Your task to perform on an android device: Go to eBay Image 0: 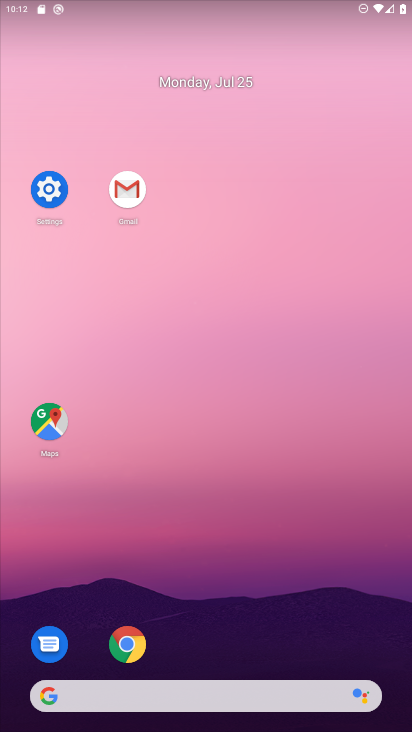
Step 0: click (121, 648)
Your task to perform on an android device: Go to eBay Image 1: 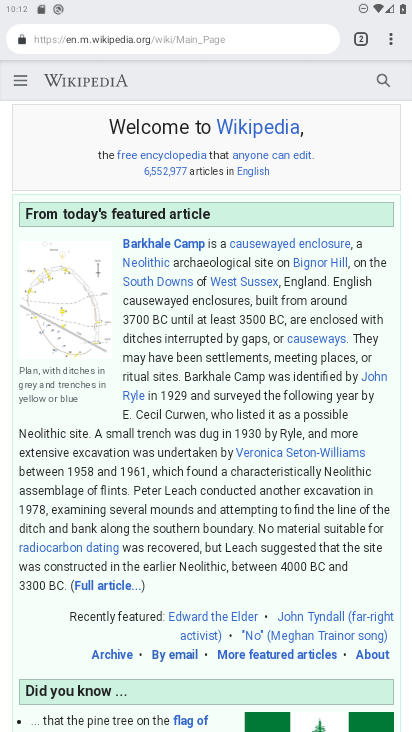
Step 1: click (355, 28)
Your task to perform on an android device: Go to eBay Image 2: 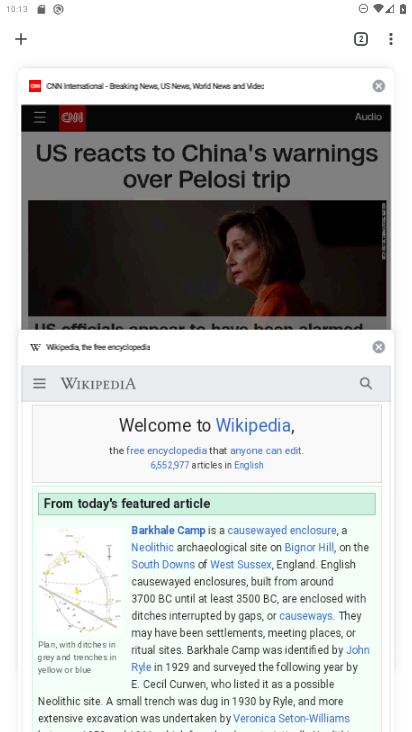
Step 2: click (33, 51)
Your task to perform on an android device: Go to eBay Image 3: 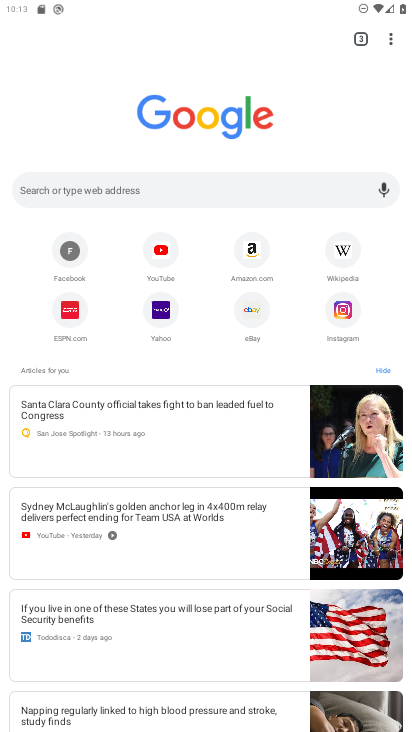
Step 3: click (254, 307)
Your task to perform on an android device: Go to eBay Image 4: 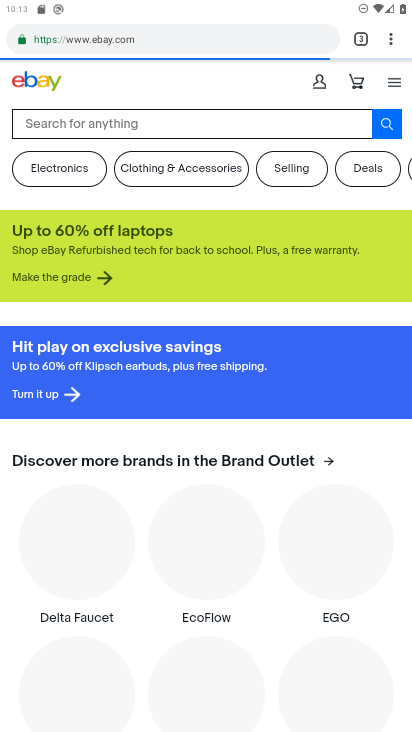
Step 4: task complete